Your task to perform on an android device: Open Google Image 0: 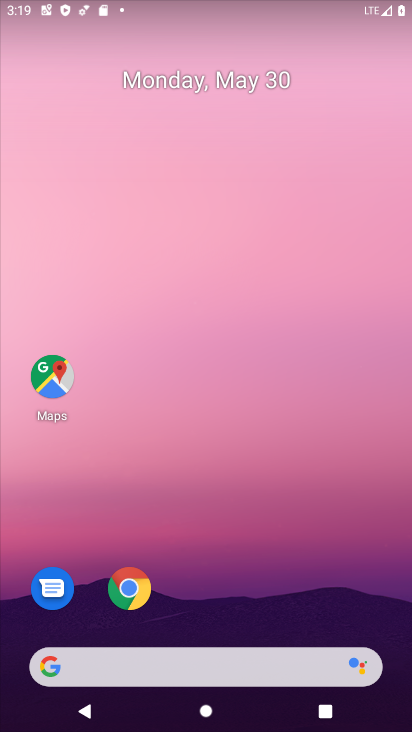
Step 0: drag from (313, 554) to (311, 38)
Your task to perform on an android device: Open Google Image 1: 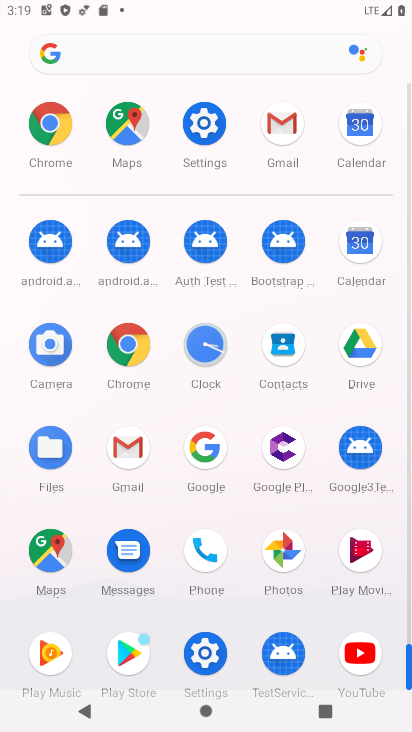
Step 1: drag from (6, 560) to (24, 234)
Your task to perform on an android device: Open Google Image 2: 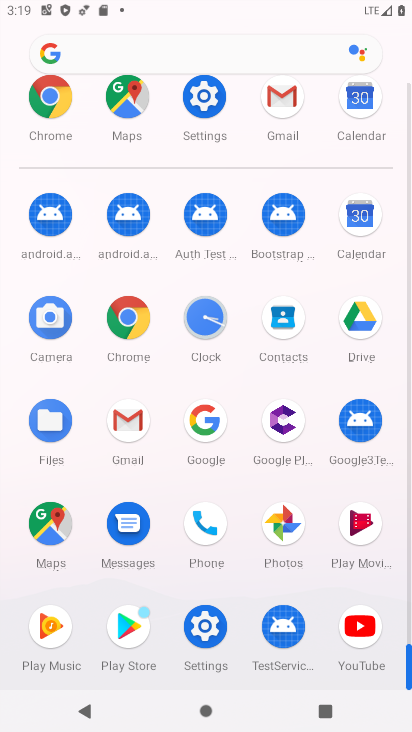
Step 2: click (124, 311)
Your task to perform on an android device: Open Google Image 3: 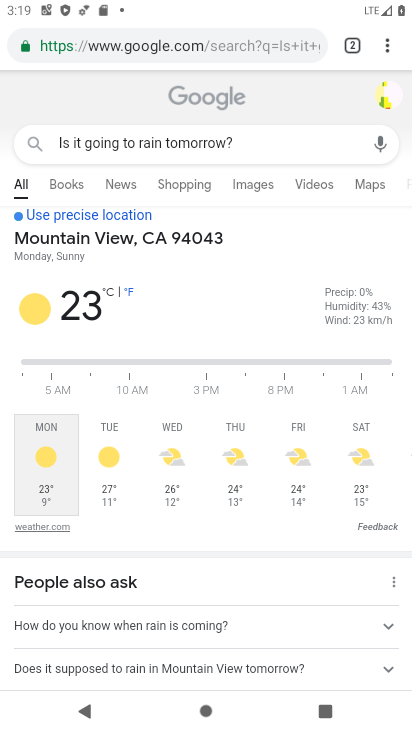
Step 3: click (199, 34)
Your task to perform on an android device: Open Google Image 4: 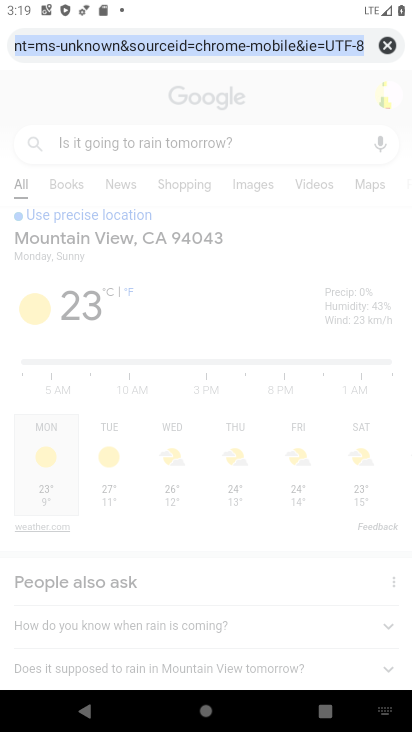
Step 4: click (384, 44)
Your task to perform on an android device: Open Google Image 5: 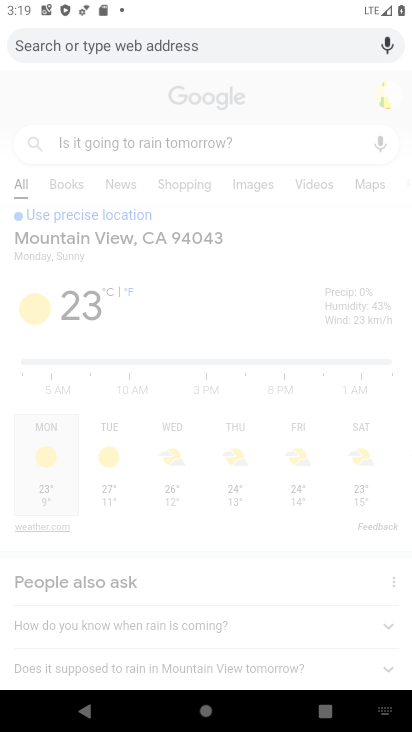
Step 5: type "Google"
Your task to perform on an android device: Open Google Image 6: 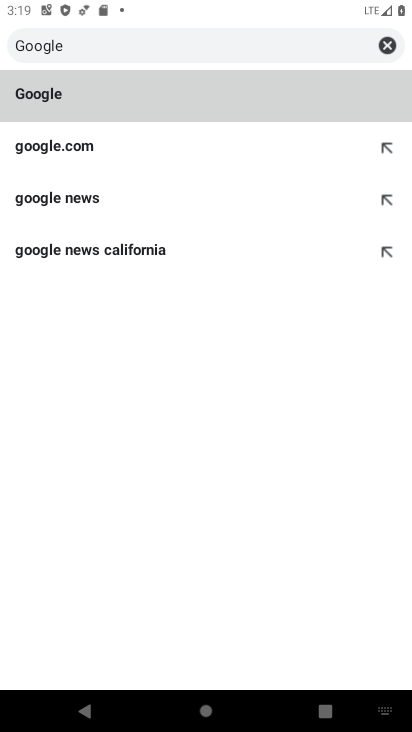
Step 6: click (75, 148)
Your task to perform on an android device: Open Google Image 7: 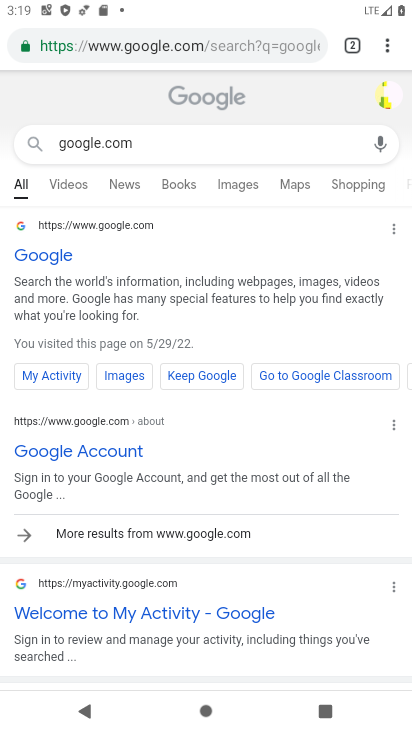
Step 7: click (40, 256)
Your task to perform on an android device: Open Google Image 8: 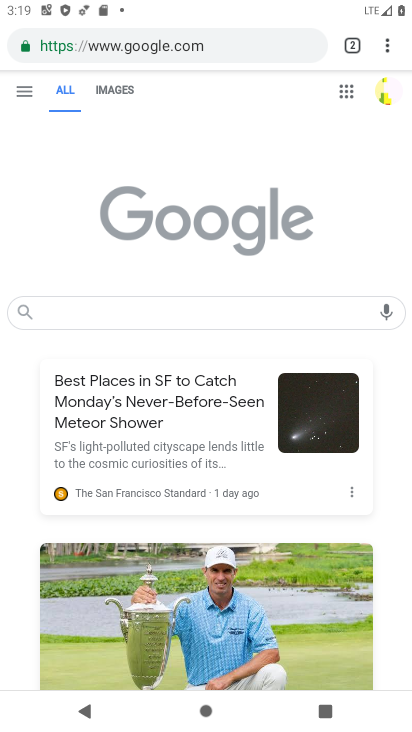
Step 8: task complete